Your task to perform on an android device: Open ESPN.com Image 0: 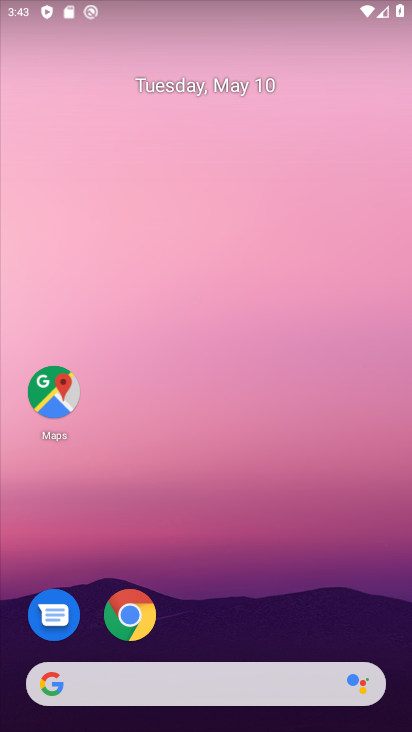
Step 0: click (139, 624)
Your task to perform on an android device: Open ESPN.com Image 1: 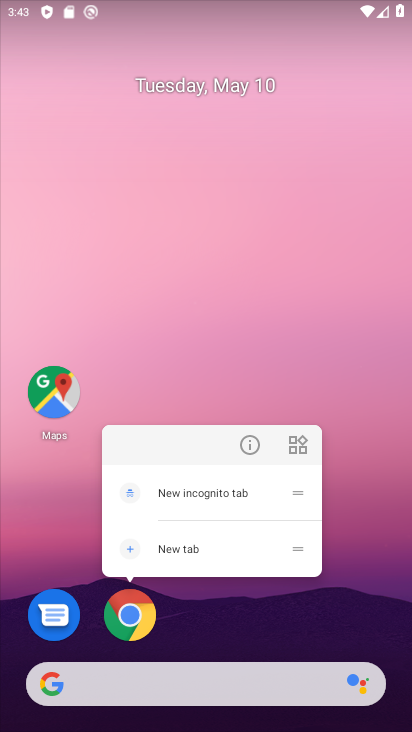
Step 1: click (139, 624)
Your task to perform on an android device: Open ESPN.com Image 2: 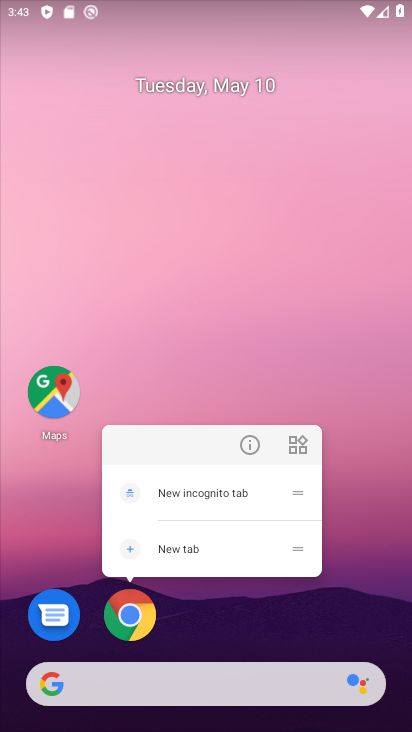
Step 2: click (133, 625)
Your task to perform on an android device: Open ESPN.com Image 3: 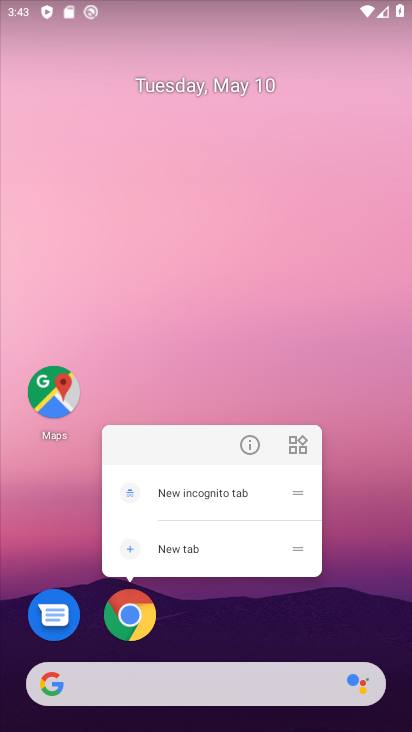
Step 3: click (133, 625)
Your task to perform on an android device: Open ESPN.com Image 4: 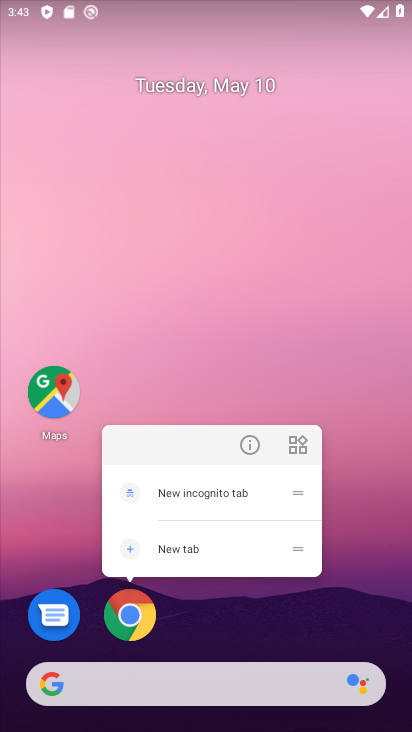
Step 4: click (133, 625)
Your task to perform on an android device: Open ESPN.com Image 5: 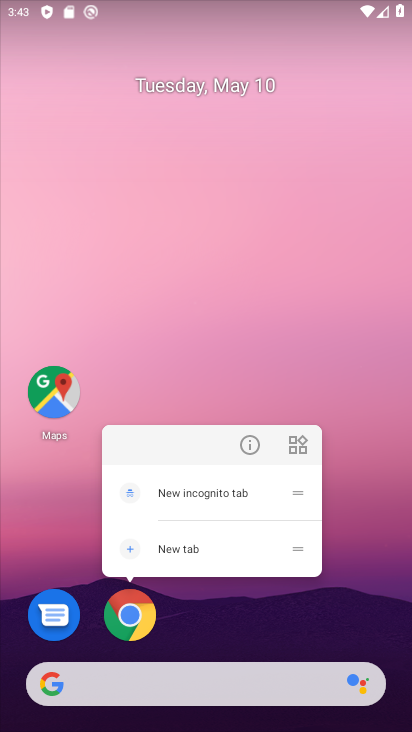
Step 5: click (130, 608)
Your task to perform on an android device: Open ESPN.com Image 6: 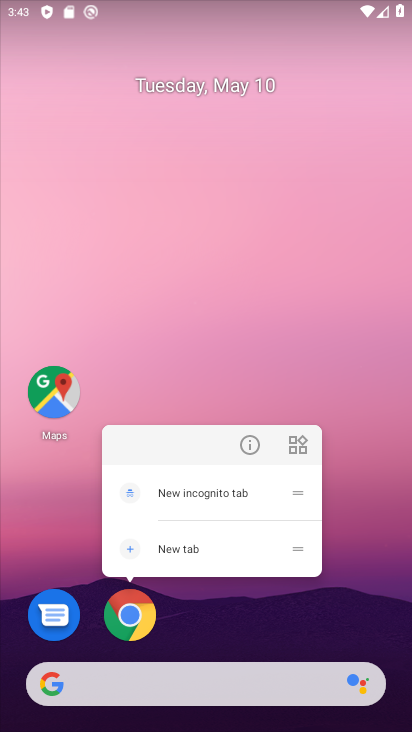
Step 6: click (134, 622)
Your task to perform on an android device: Open ESPN.com Image 7: 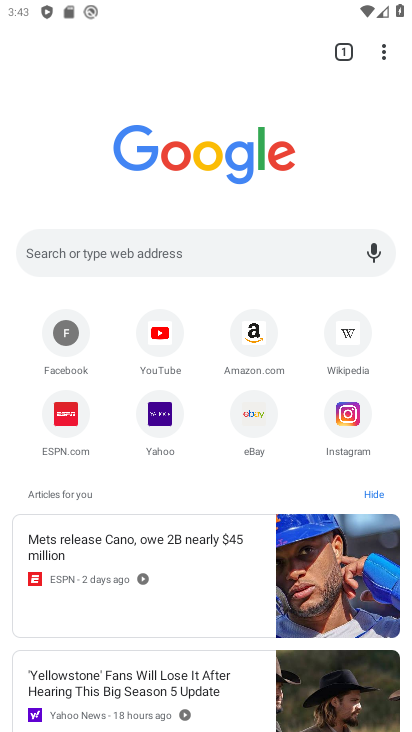
Step 7: click (214, 256)
Your task to perform on an android device: Open ESPN.com Image 8: 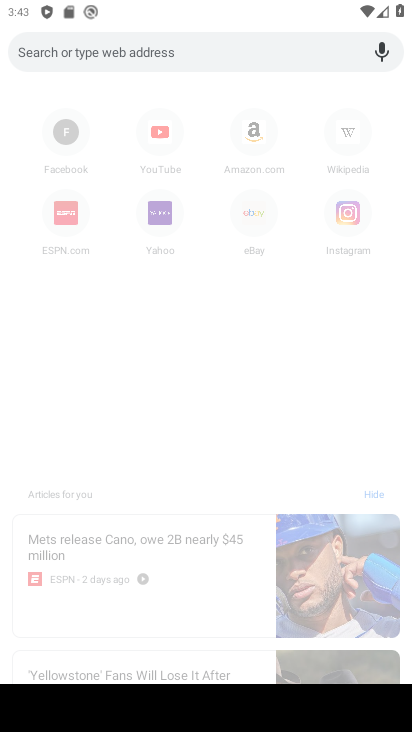
Step 8: type "ESPN.com"
Your task to perform on an android device: Open ESPN.com Image 9: 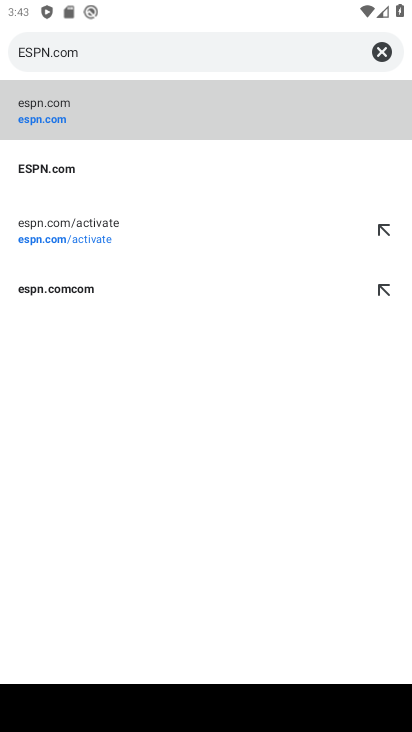
Step 9: click (50, 119)
Your task to perform on an android device: Open ESPN.com Image 10: 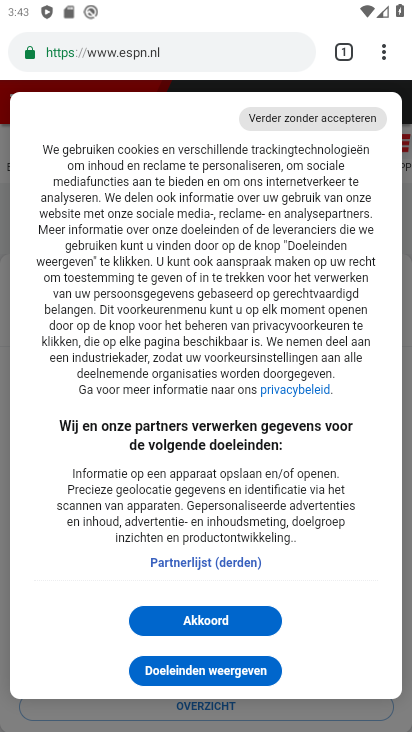
Step 10: task complete